Your task to perform on an android device: Open Google Chrome Image 0: 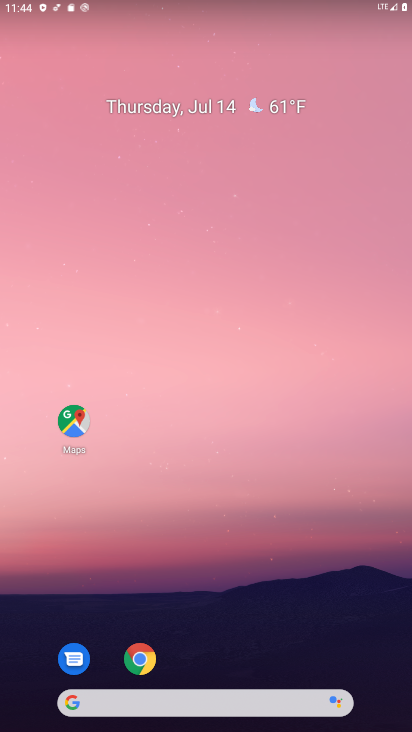
Step 0: click (141, 659)
Your task to perform on an android device: Open Google Chrome Image 1: 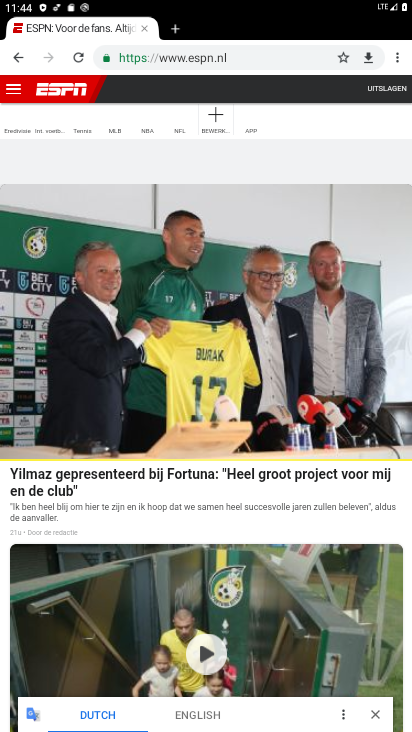
Step 1: task complete